Your task to perform on an android device: What's on my calendar tomorrow? Image 0: 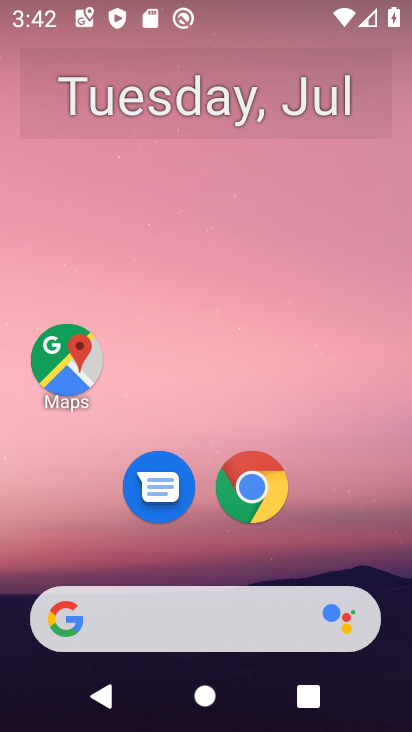
Step 0: drag from (193, 519) to (266, 32)
Your task to perform on an android device: What's on my calendar tomorrow? Image 1: 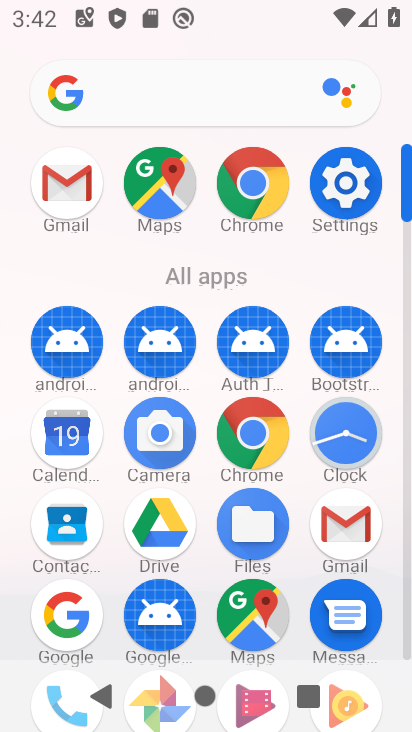
Step 1: click (78, 428)
Your task to perform on an android device: What's on my calendar tomorrow? Image 2: 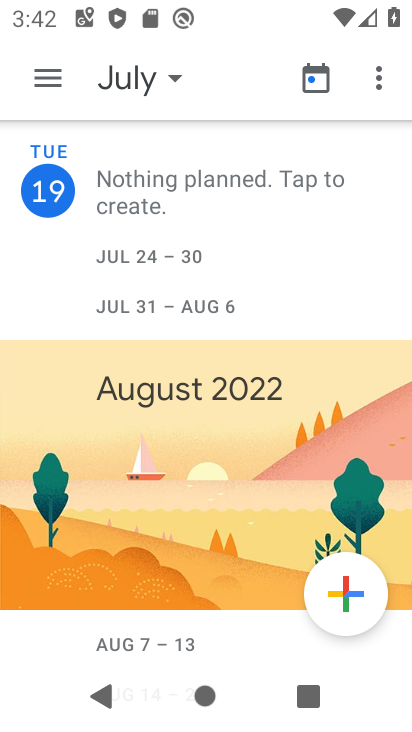
Step 2: click (156, 85)
Your task to perform on an android device: What's on my calendar tomorrow? Image 3: 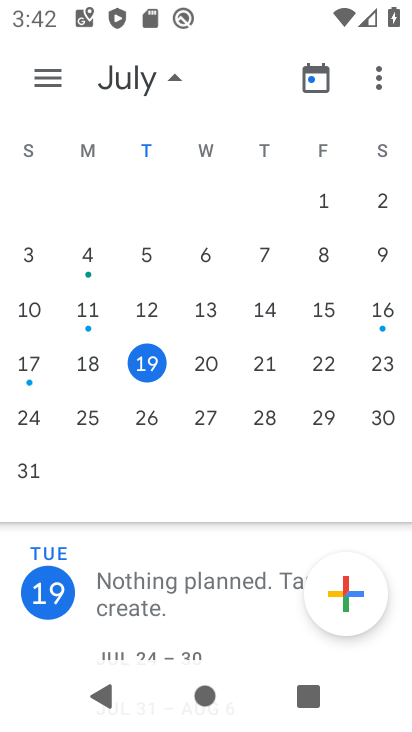
Step 3: click (200, 354)
Your task to perform on an android device: What's on my calendar tomorrow? Image 4: 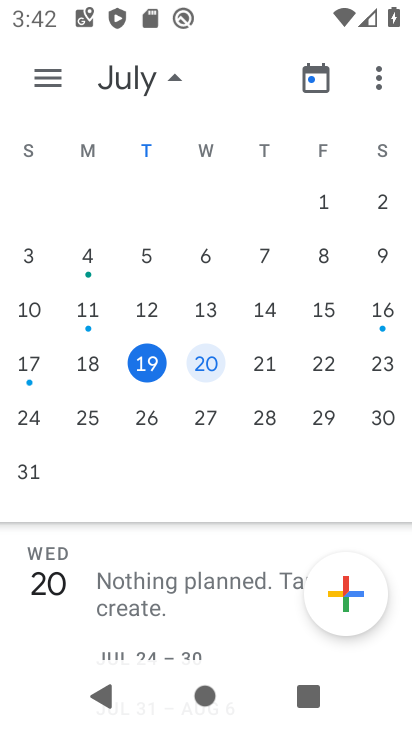
Step 4: task complete